Your task to perform on an android device: Open maps Image 0: 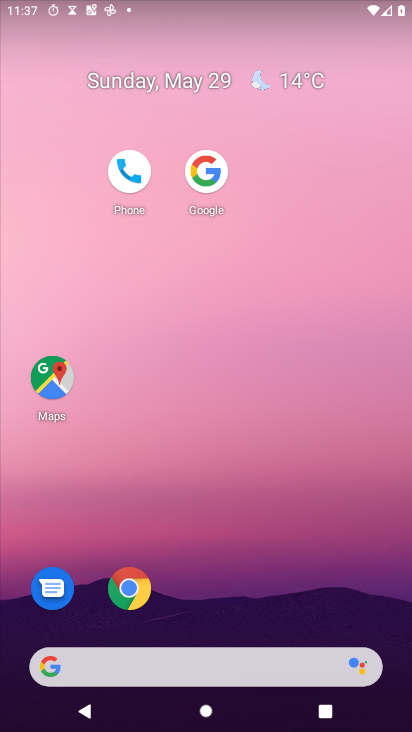
Step 0: drag from (299, 690) to (224, 236)
Your task to perform on an android device: Open maps Image 1: 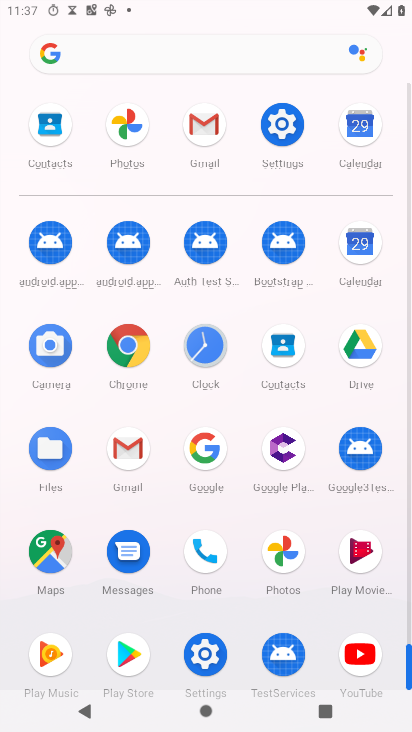
Step 1: click (52, 542)
Your task to perform on an android device: Open maps Image 2: 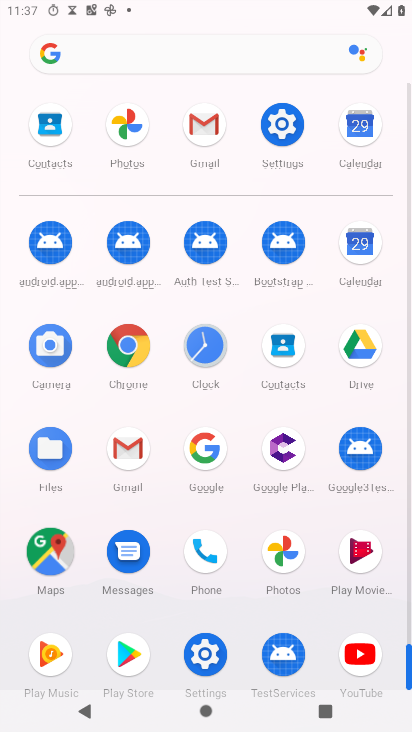
Step 2: click (51, 541)
Your task to perform on an android device: Open maps Image 3: 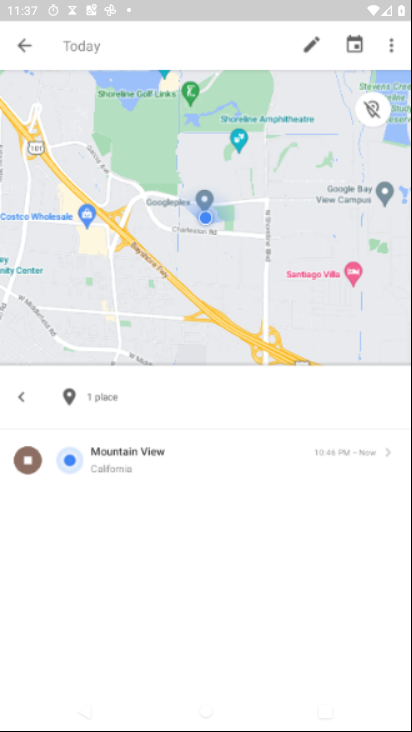
Step 3: click (50, 540)
Your task to perform on an android device: Open maps Image 4: 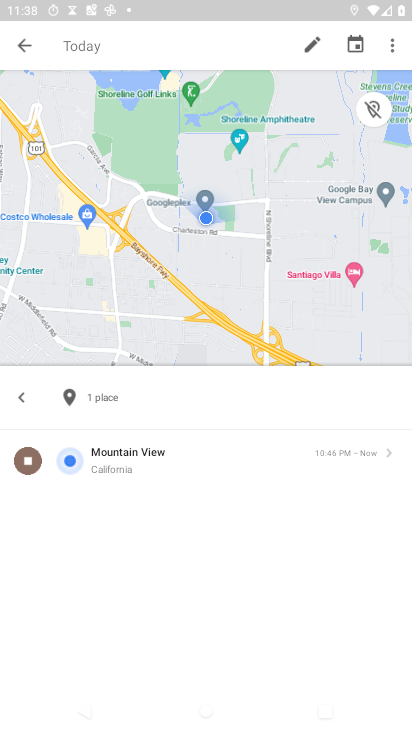
Step 4: task complete